Your task to perform on an android device: open app "Upside-Cash back on gas & food" (install if not already installed), go to login, and select forgot password Image 0: 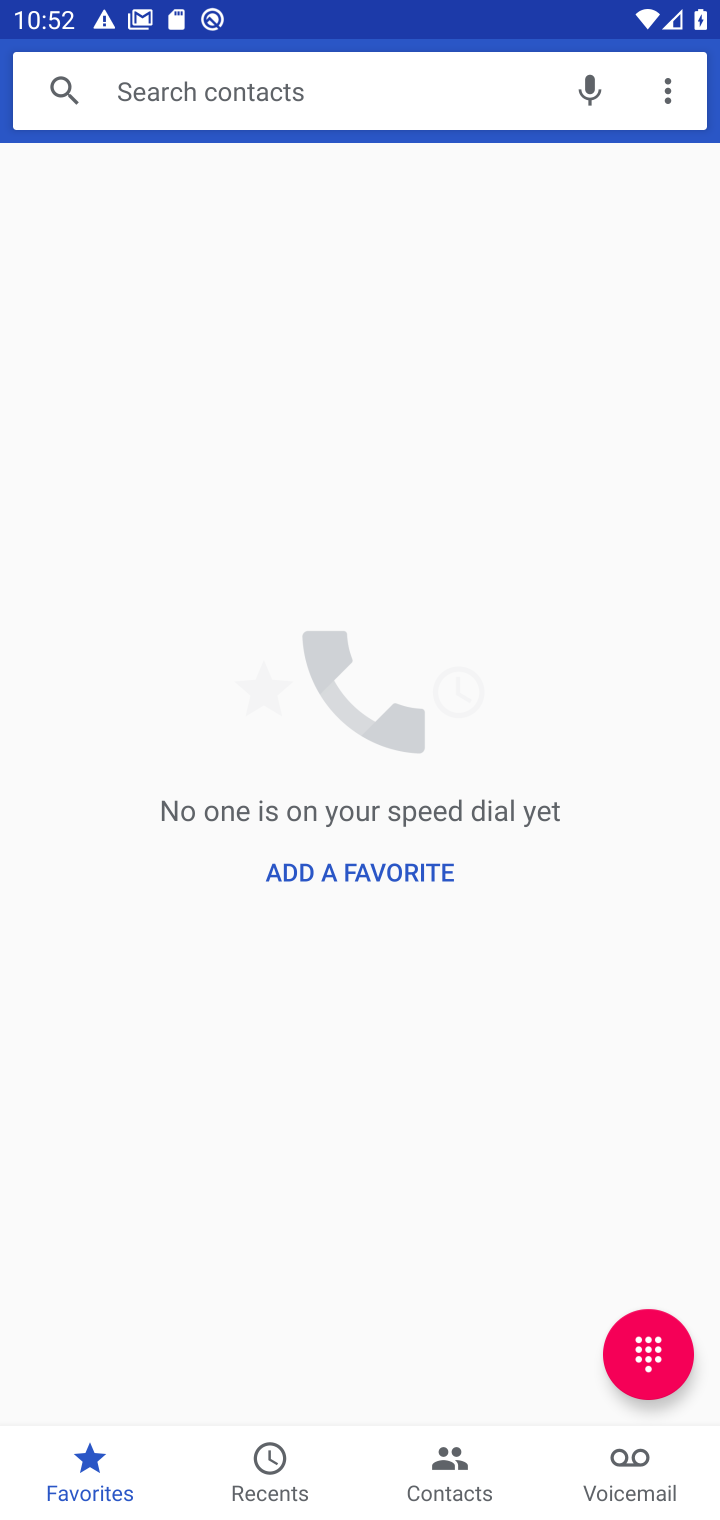
Step 0: press home button
Your task to perform on an android device: open app "Upside-Cash back on gas & food" (install if not already installed), go to login, and select forgot password Image 1: 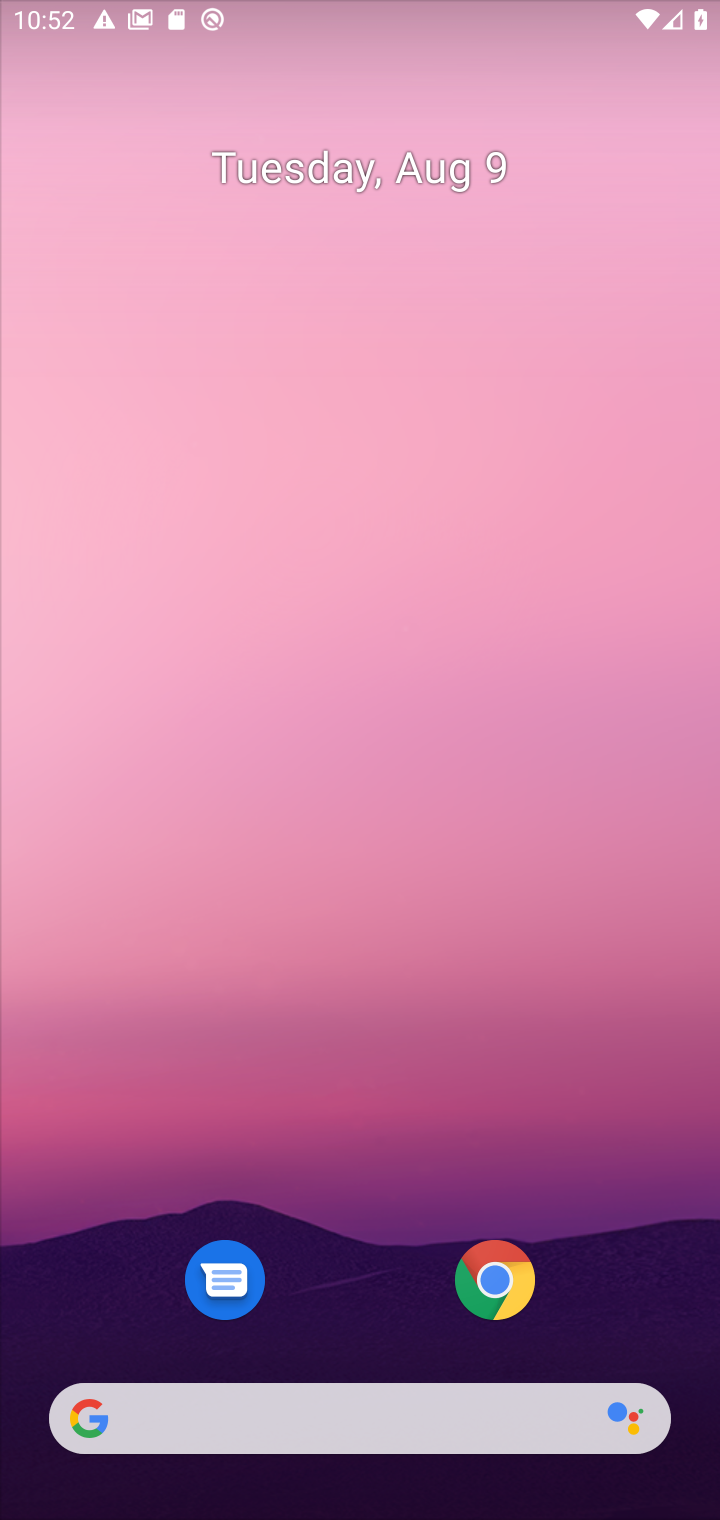
Step 1: drag from (345, 1374) to (111, 29)
Your task to perform on an android device: open app "Upside-Cash back on gas & food" (install if not already installed), go to login, and select forgot password Image 2: 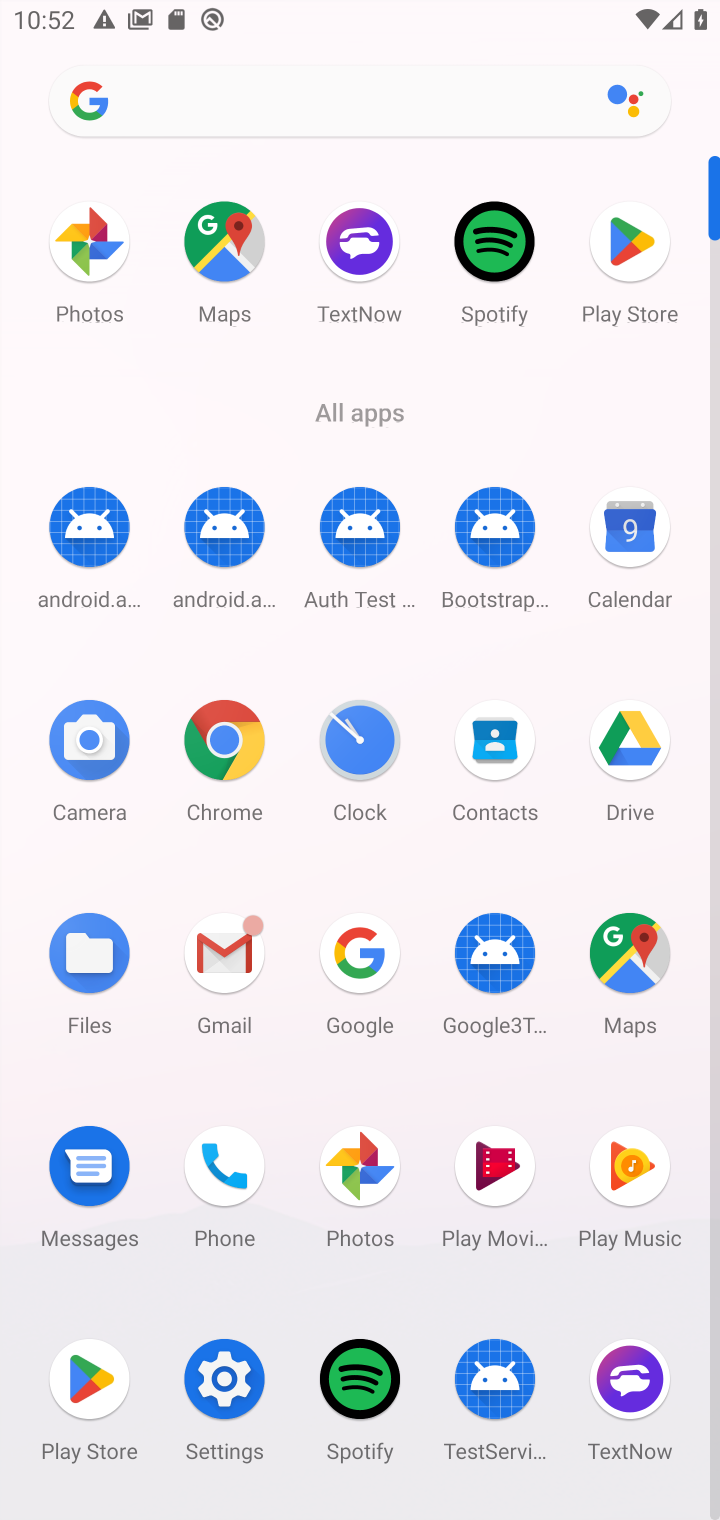
Step 2: click (95, 1382)
Your task to perform on an android device: open app "Upside-Cash back on gas & food" (install if not already installed), go to login, and select forgot password Image 3: 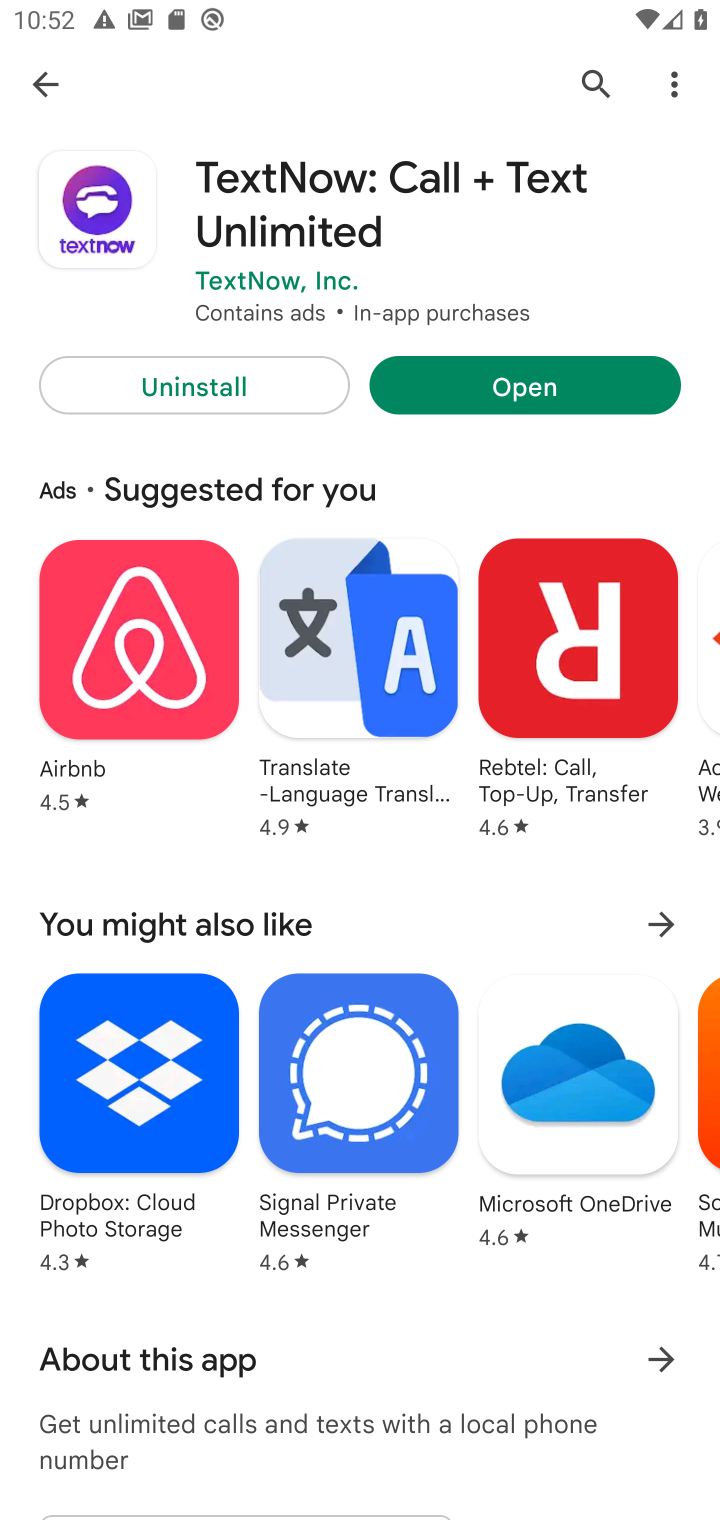
Step 3: click (584, 76)
Your task to perform on an android device: open app "Upside-Cash back on gas & food" (install if not already installed), go to login, and select forgot password Image 4: 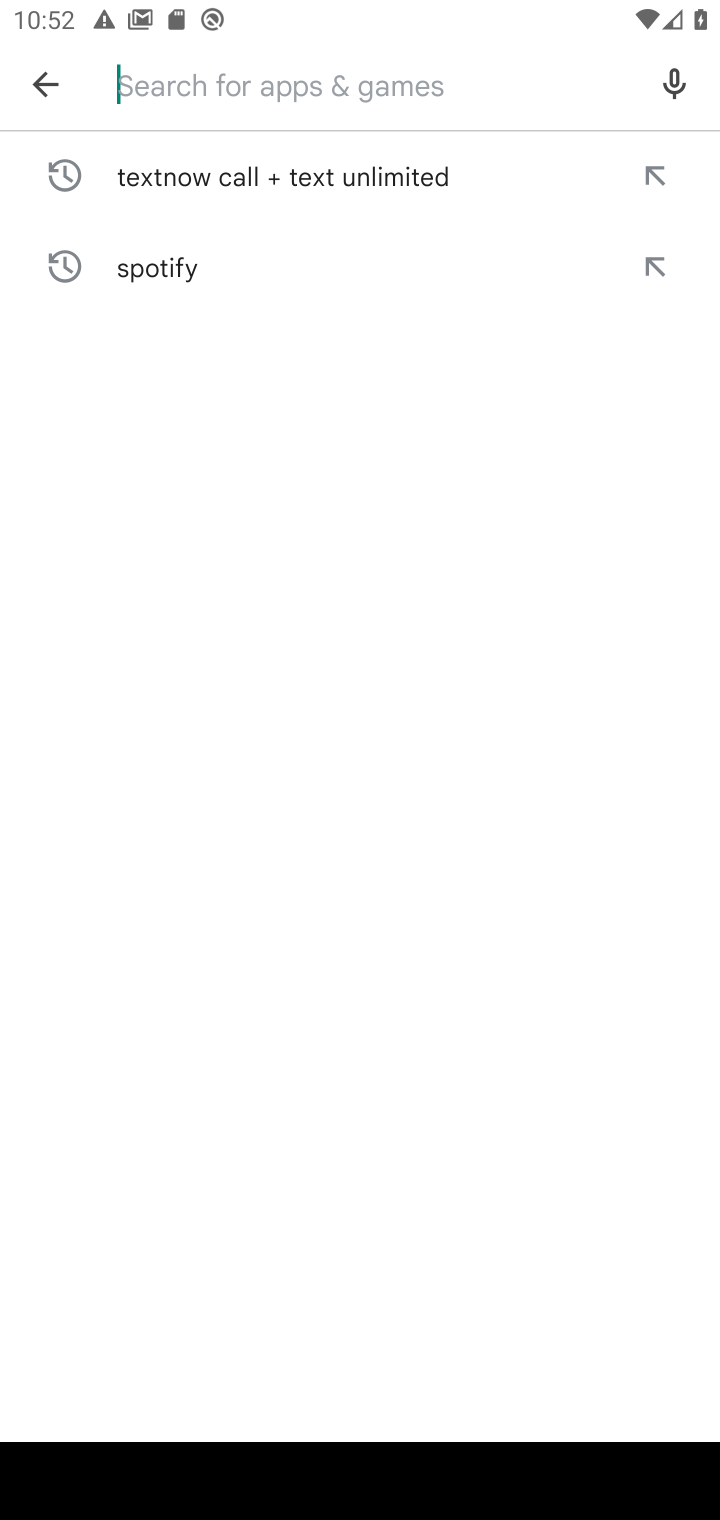
Step 4: type "Upside-Cash back on gas & food"
Your task to perform on an android device: open app "Upside-Cash back on gas & food" (install if not already installed), go to login, and select forgot password Image 5: 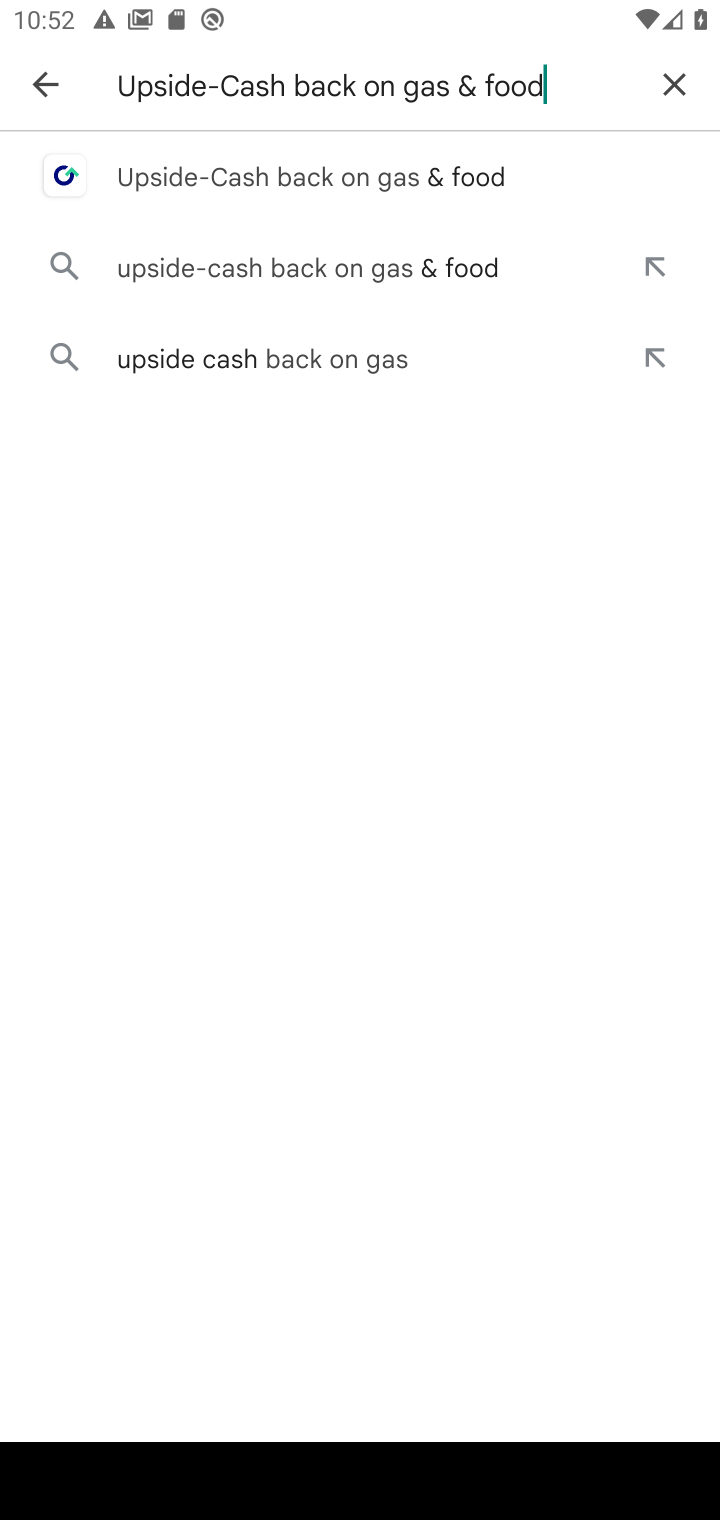
Step 5: type ""
Your task to perform on an android device: open app "Upside-Cash back on gas & food" (install if not already installed), go to login, and select forgot password Image 6: 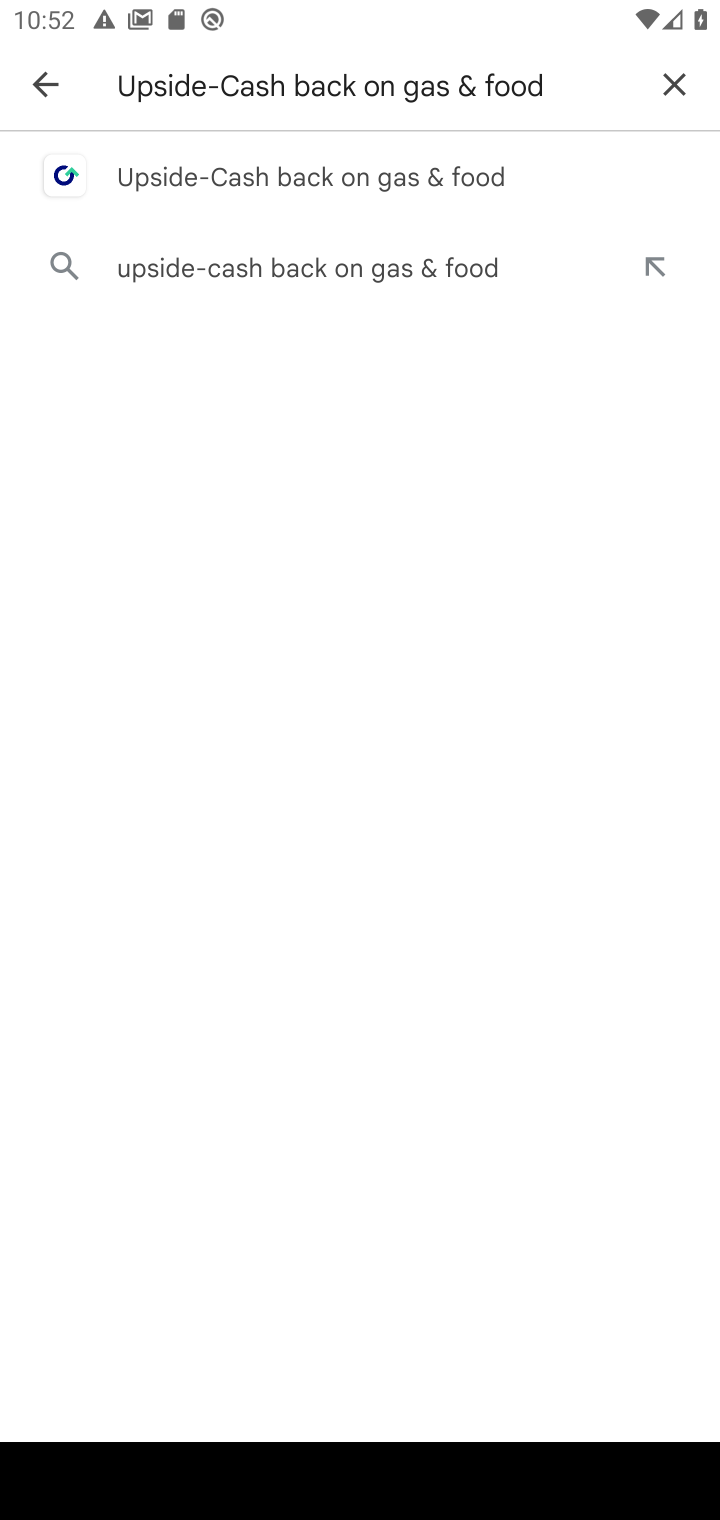
Step 6: click (347, 186)
Your task to perform on an android device: open app "Upside-Cash back on gas & food" (install if not already installed), go to login, and select forgot password Image 7: 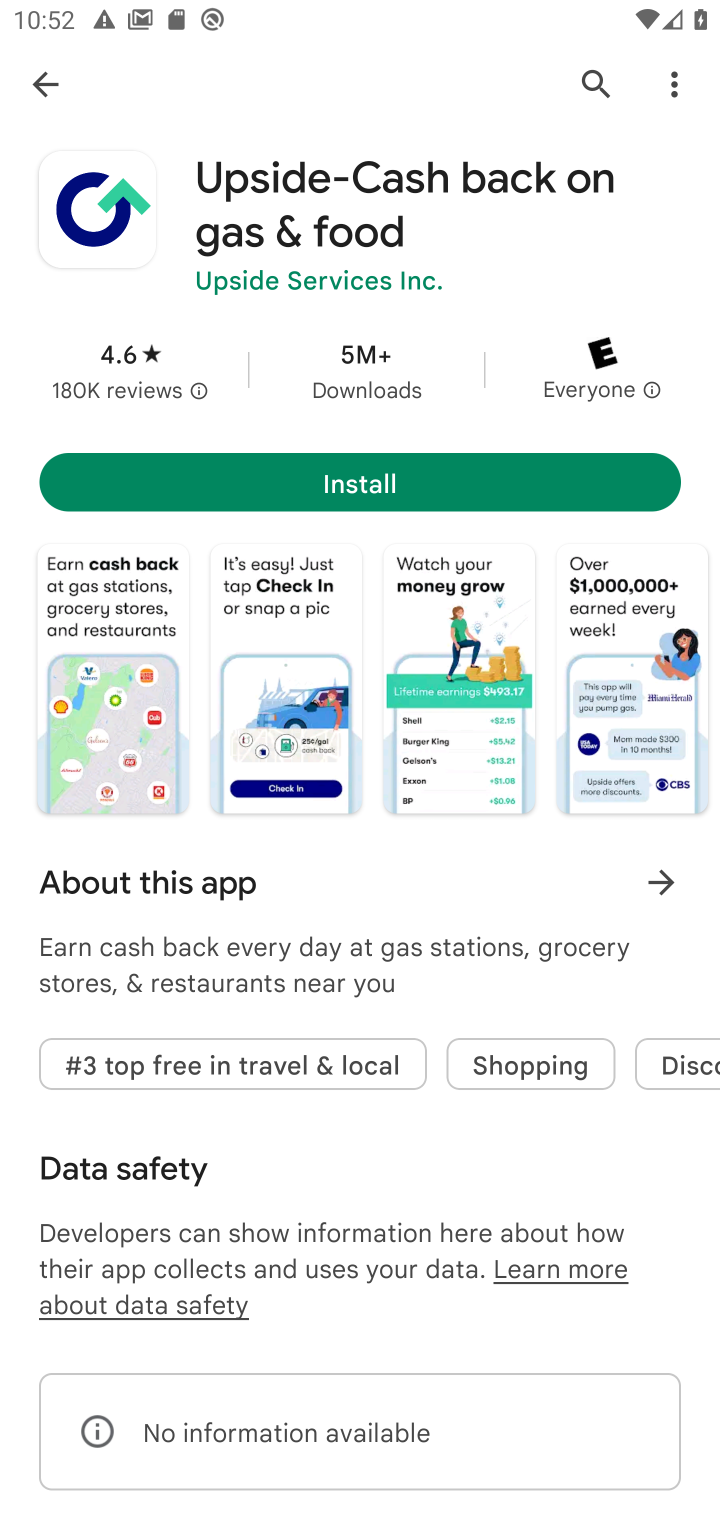
Step 7: click (310, 495)
Your task to perform on an android device: open app "Upside-Cash back on gas & food" (install if not already installed), go to login, and select forgot password Image 8: 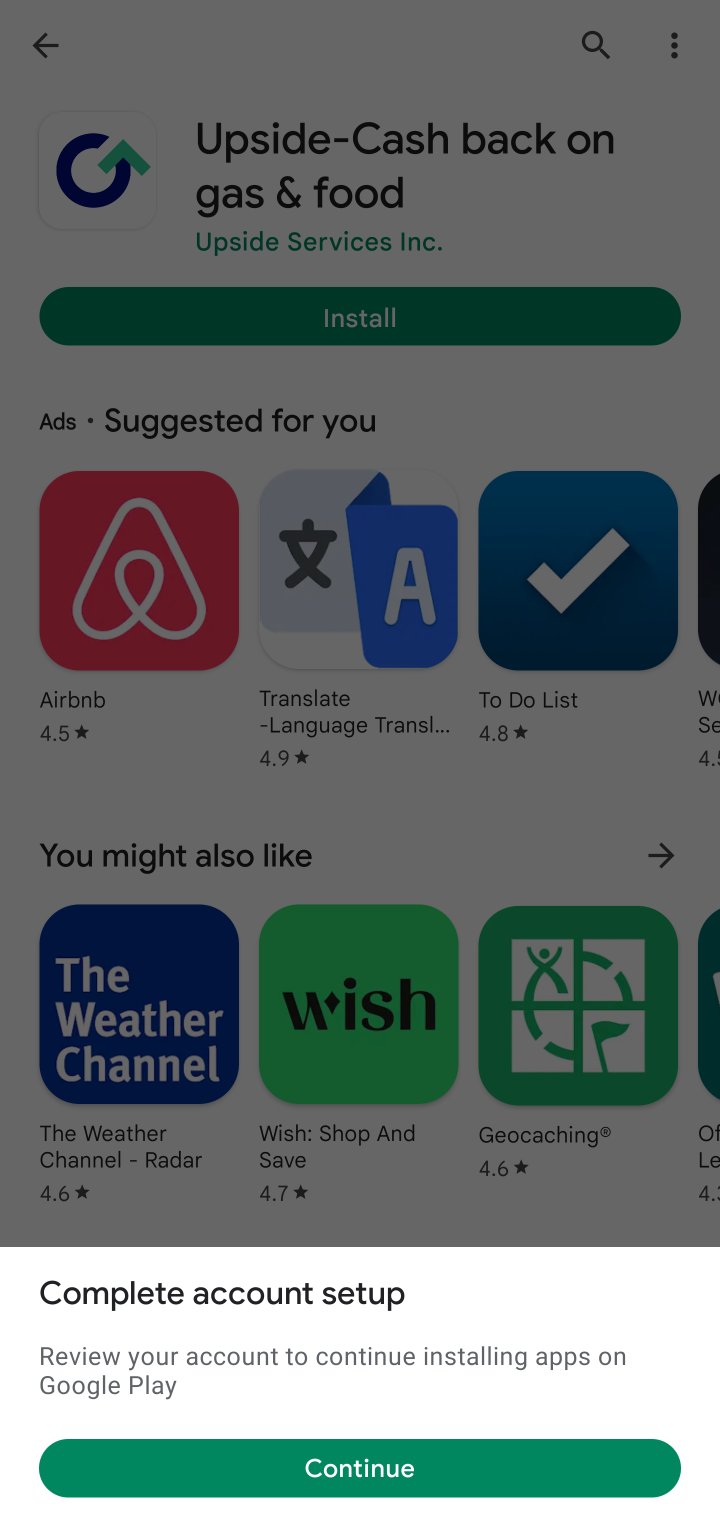
Step 8: click (186, 1472)
Your task to perform on an android device: open app "Upside-Cash back on gas & food" (install if not already installed), go to login, and select forgot password Image 9: 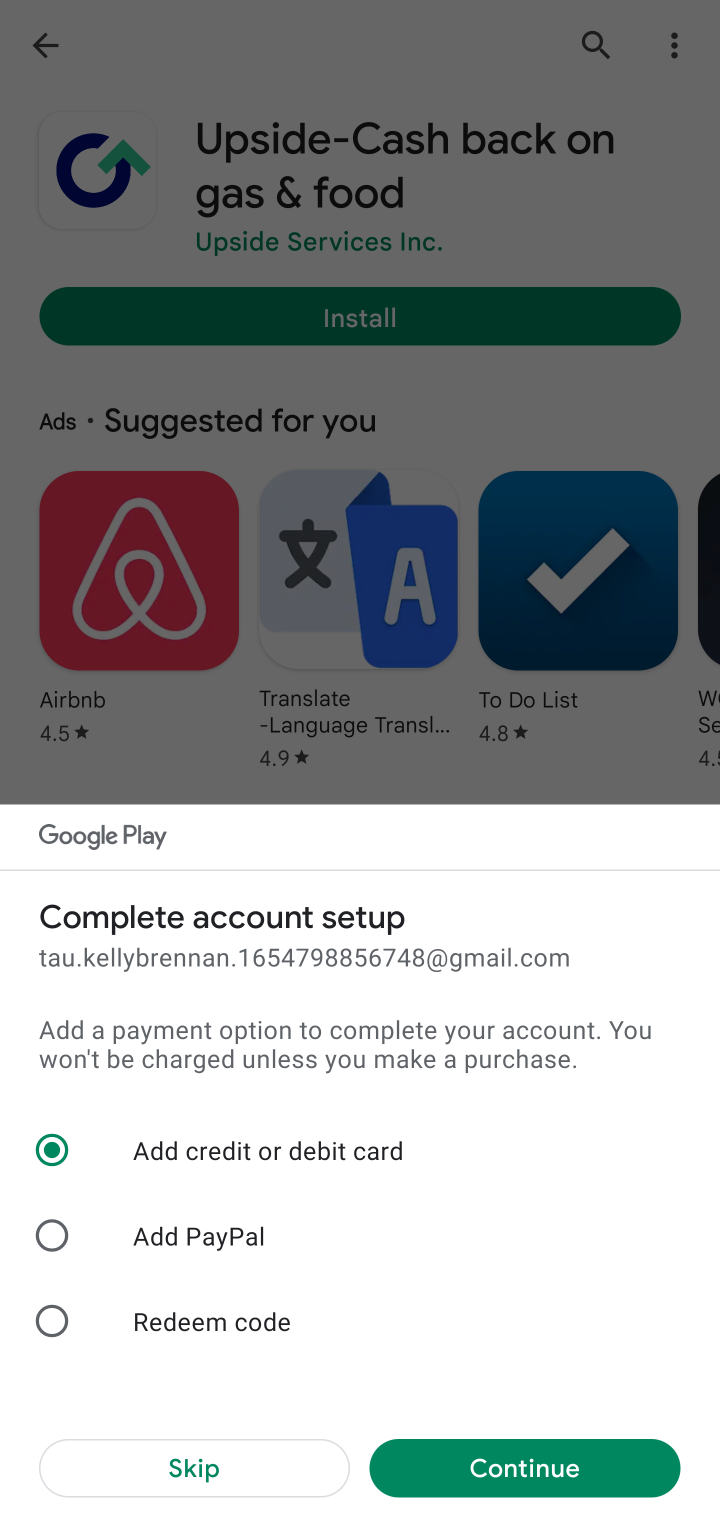
Step 9: click (182, 1478)
Your task to perform on an android device: open app "Upside-Cash back on gas & food" (install if not already installed), go to login, and select forgot password Image 10: 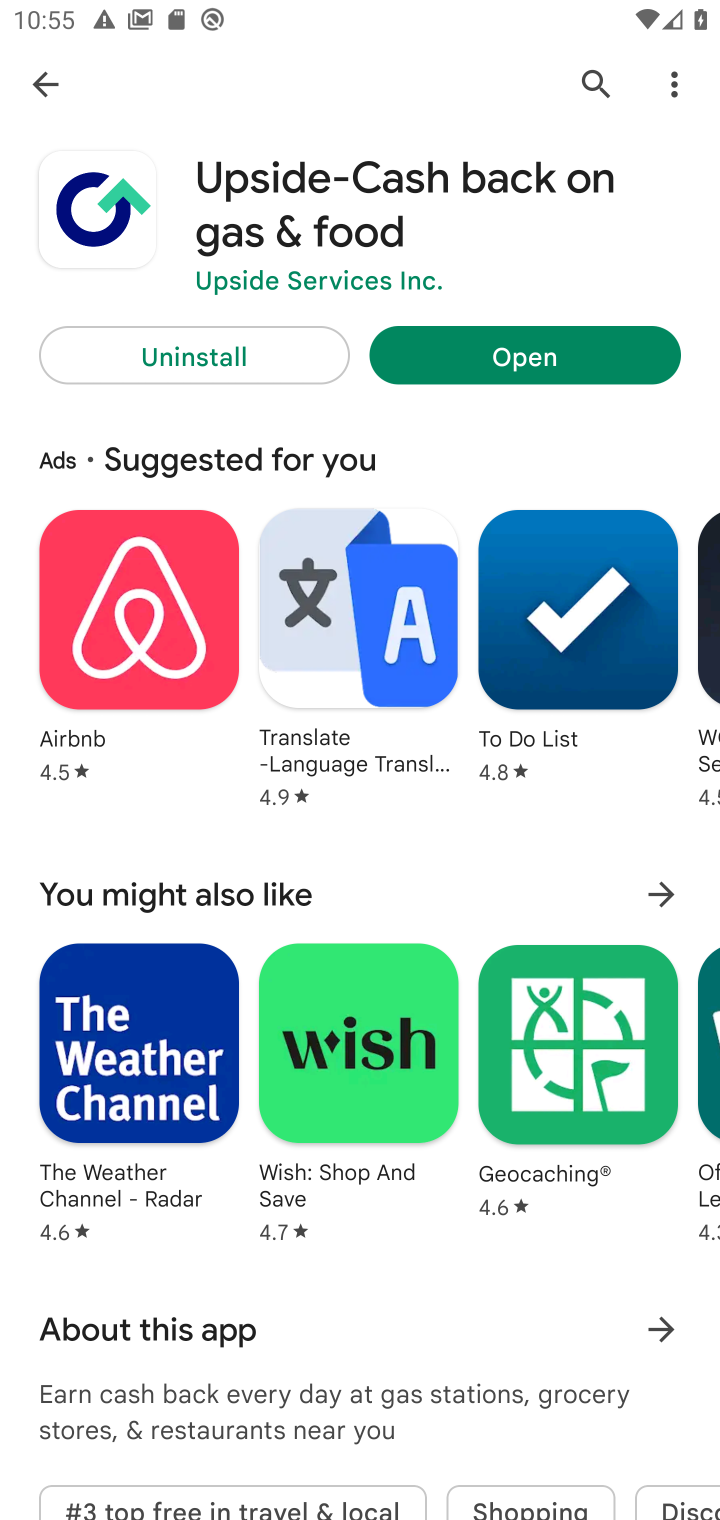
Step 10: click (574, 375)
Your task to perform on an android device: open app "Upside-Cash back on gas & food" (install if not already installed), go to login, and select forgot password Image 11: 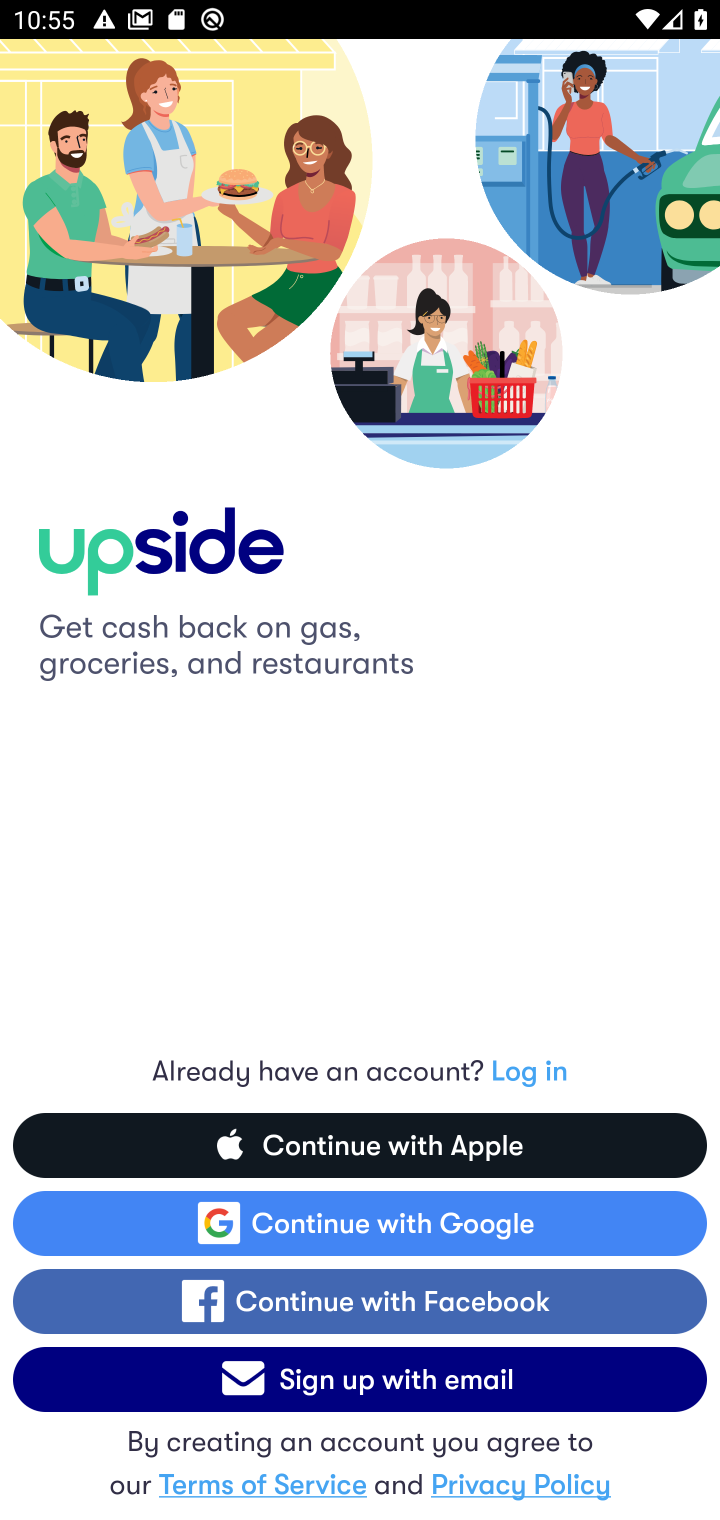
Step 11: click (400, 1383)
Your task to perform on an android device: open app "Upside-Cash back on gas & food" (install if not already installed), go to login, and select forgot password Image 12: 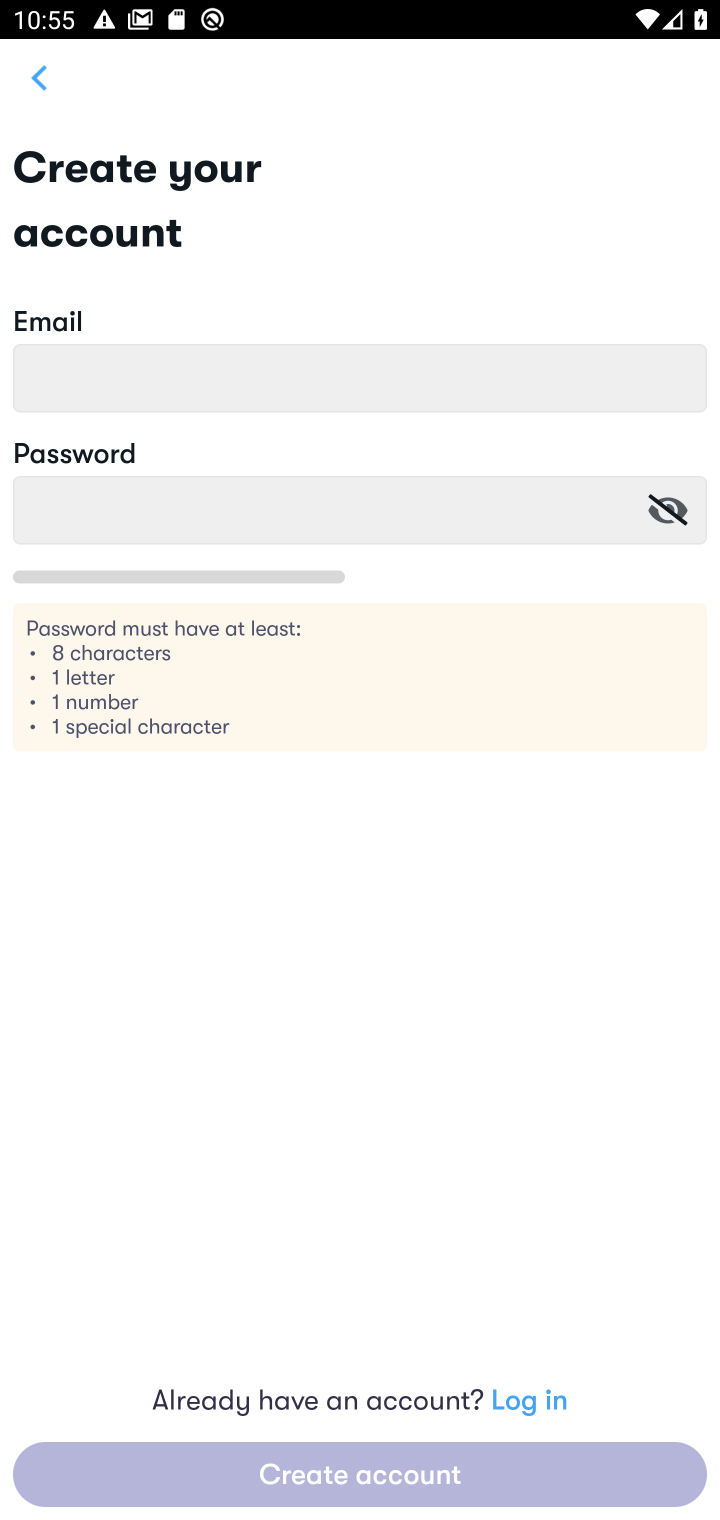
Step 12: click (45, 61)
Your task to perform on an android device: open app "Upside-Cash back on gas & food" (install if not already installed), go to login, and select forgot password Image 13: 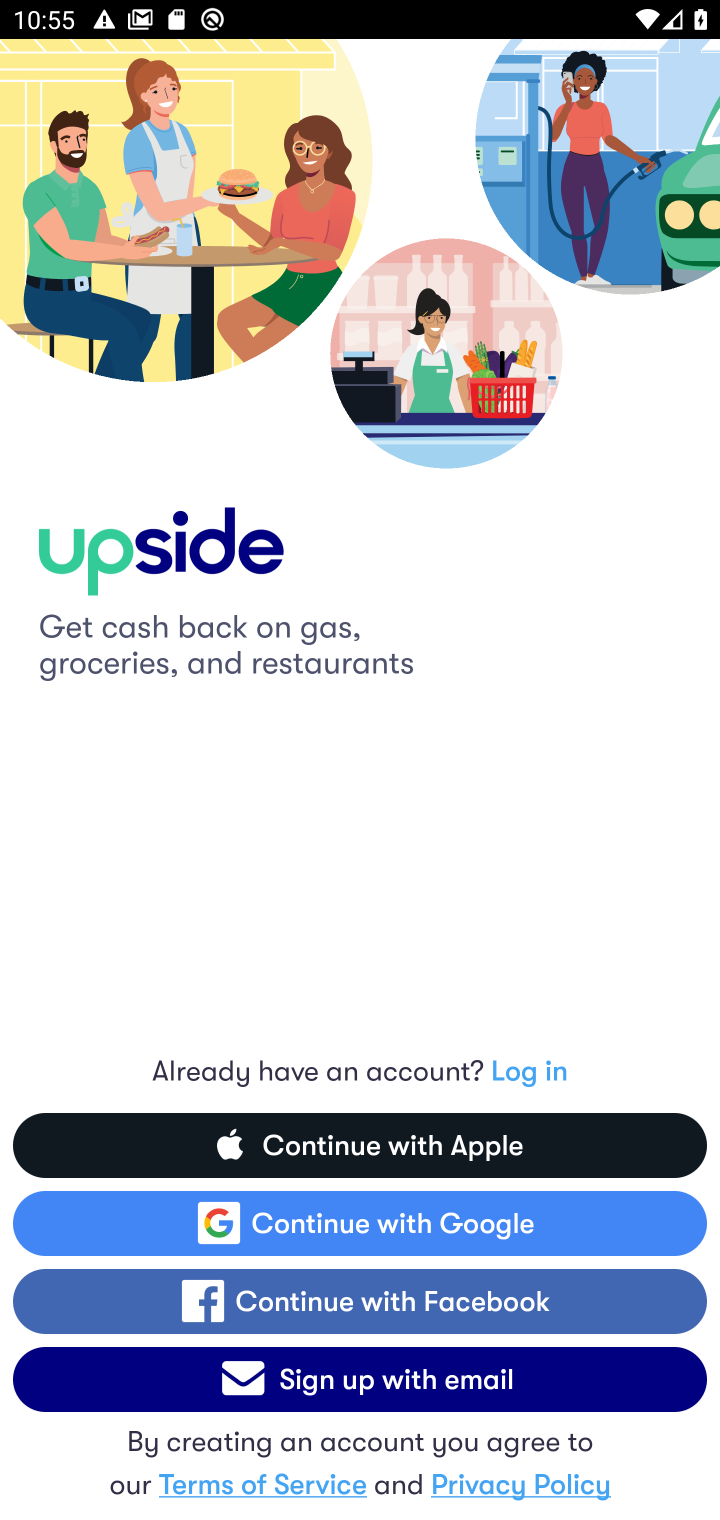
Step 13: click (524, 1074)
Your task to perform on an android device: open app "Upside-Cash back on gas & food" (install if not already installed), go to login, and select forgot password Image 14: 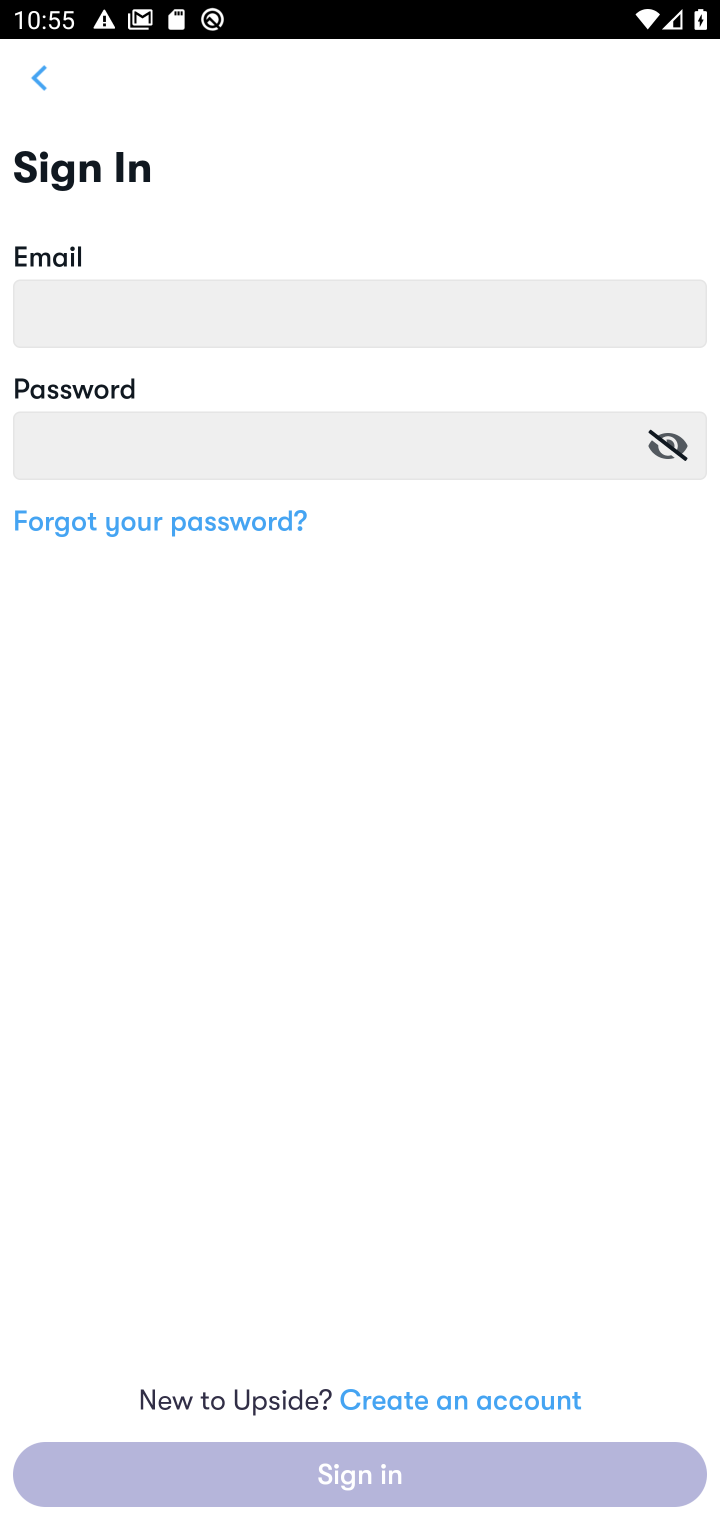
Step 14: click (159, 521)
Your task to perform on an android device: open app "Upside-Cash back on gas & food" (install if not already installed), go to login, and select forgot password Image 15: 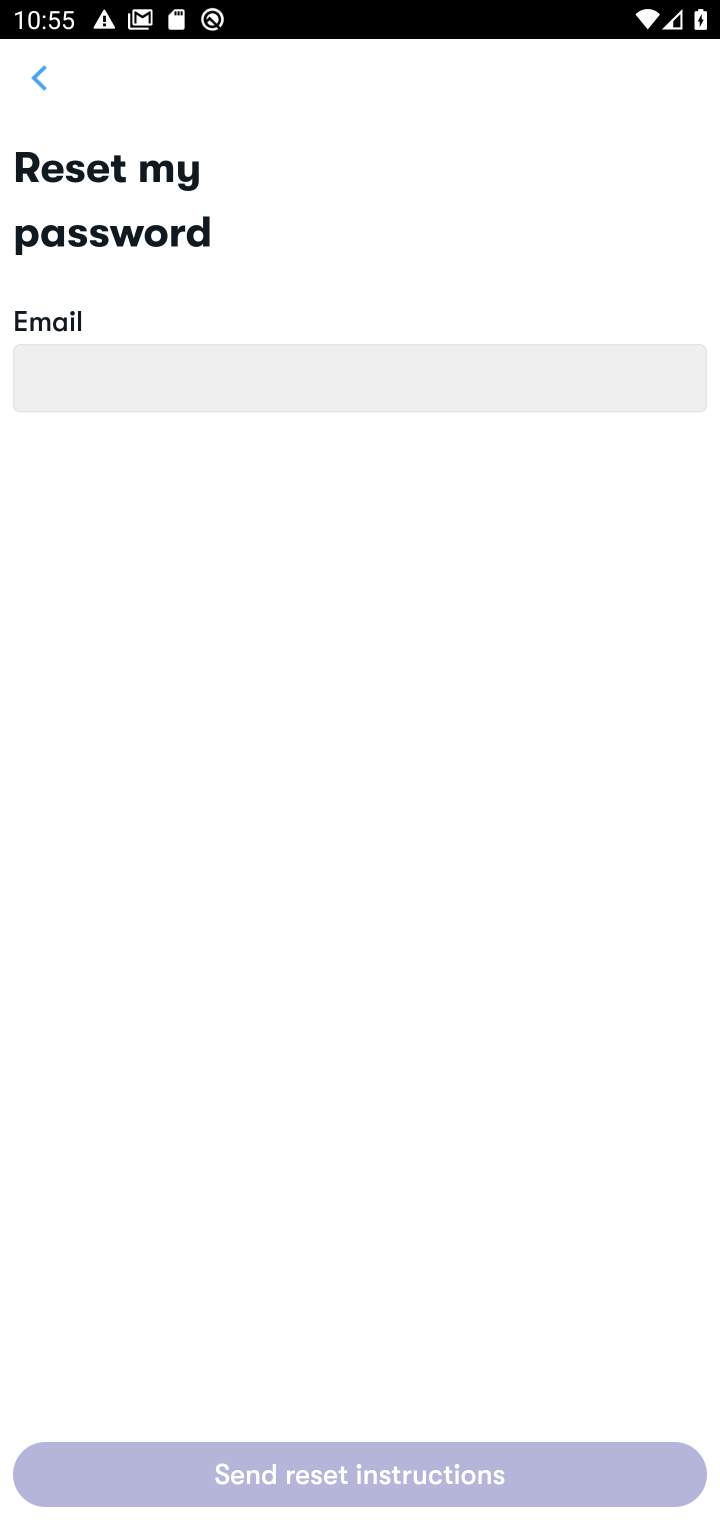
Step 15: task complete